Your task to perform on an android device: Find coffee shops on Maps Image 0: 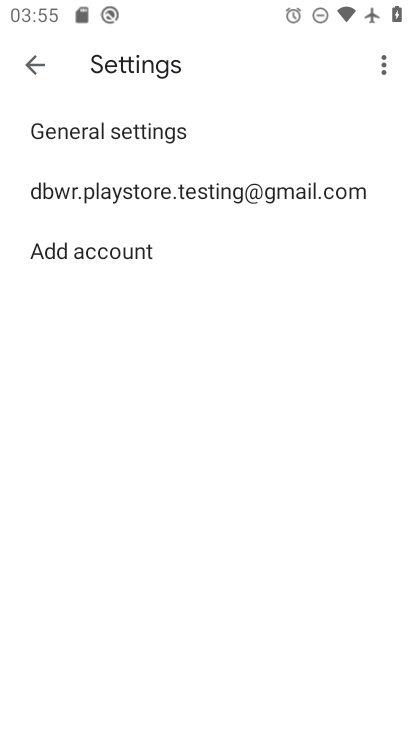
Step 0: press home button
Your task to perform on an android device: Find coffee shops on Maps Image 1: 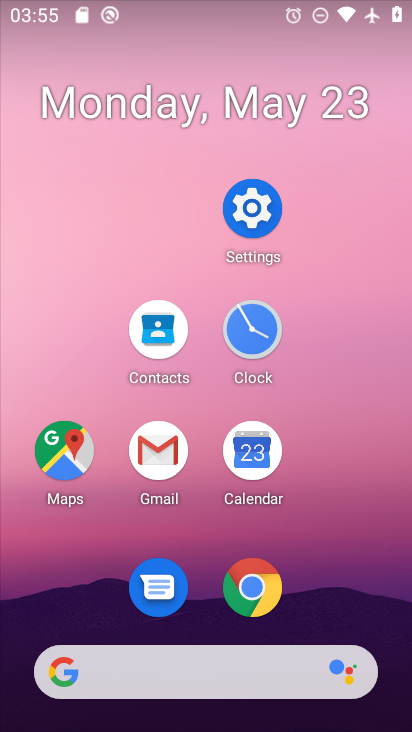
Step 1: click (38, 464)
Your task to perform on an android device: Find coffee shops on Maps Image 2: 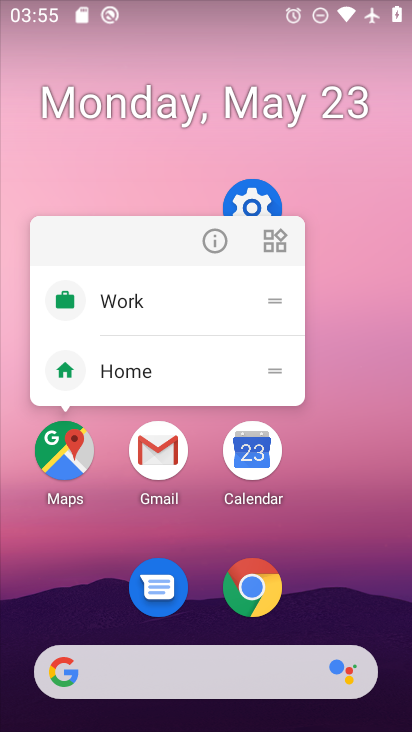
Step 2: click (51, 463)
Your task to perform on an android device: Find coffee shops on Maps Image 3: 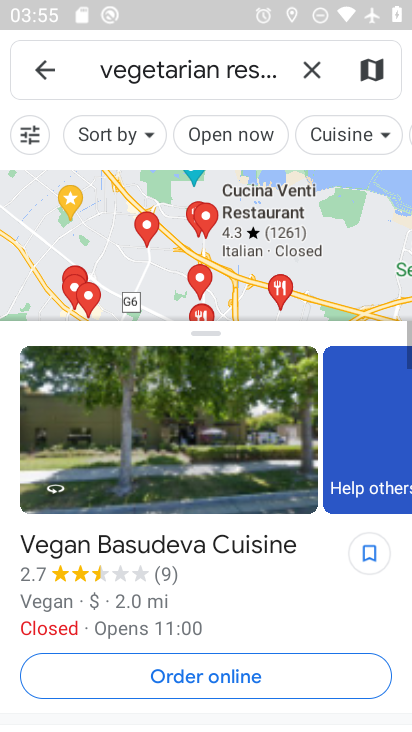
Step 3: click (315, 62)
Your task to perform on an android device: Find coffee shops on Maps Image 4: 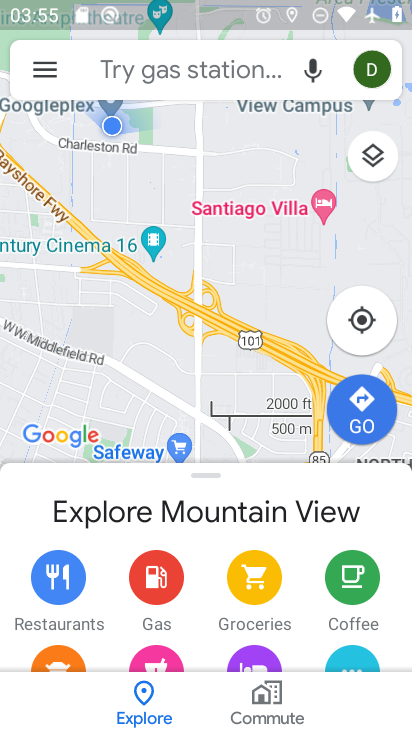
Step 4: click (175, 69)
Your task to perform on an android device: Find coffee shops on Maps Image 5: 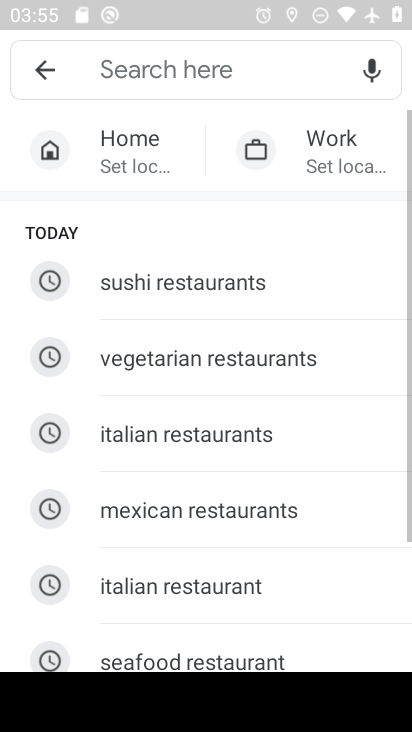
Step 5: drag from (211, 601) to (259, 287)
Your task to perform on an android device: Find coffee shops on Maps Image 6: 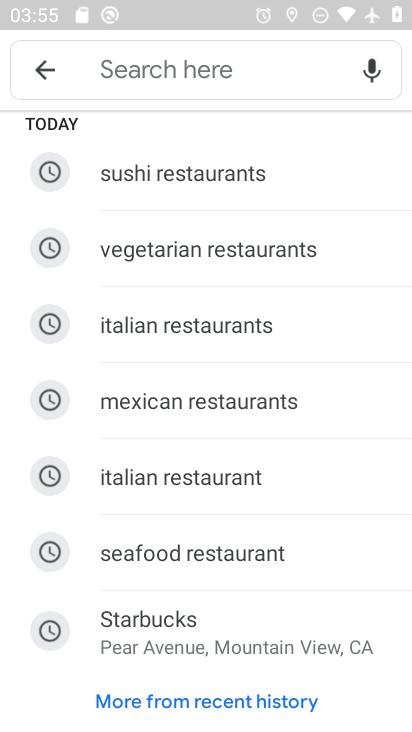
Step 6: click (203, 614)
Your task to perform on an android device: Find coffee shops on Maps Image 7: 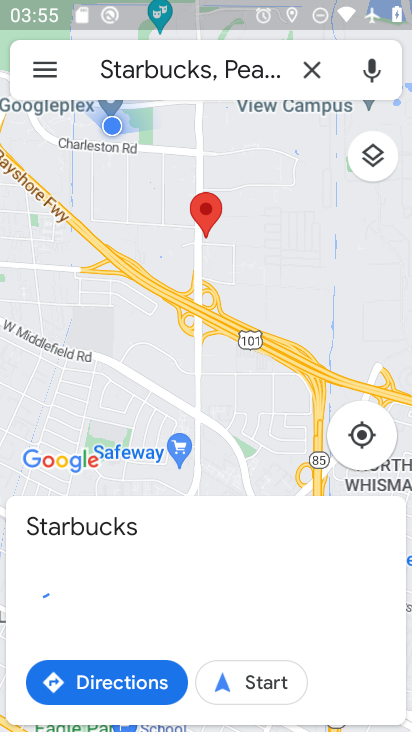
Step 7: task complete